Your task to perform on an android device: turn off translation in the chrome app Image 0: 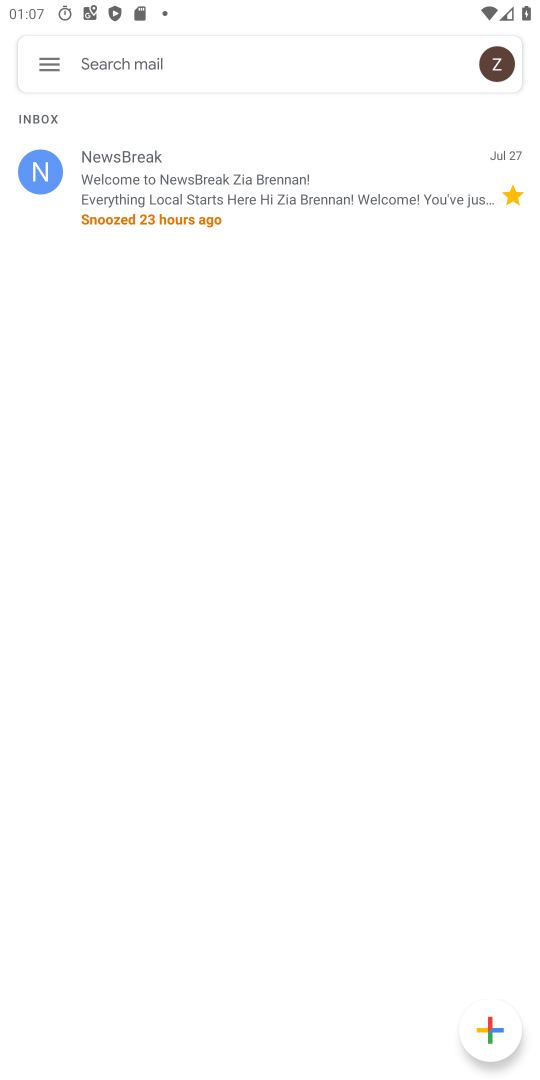
Step 0: press home button
Your task to perform on an android device: turn off translation in the chrome app Image 1: 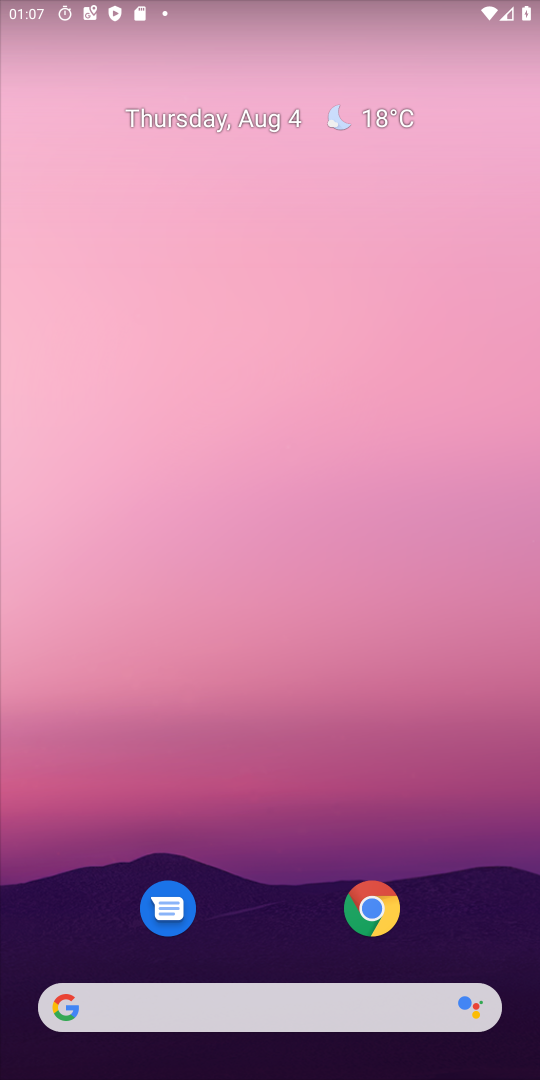
Step 1: drag from (376, 1036) to (337, 140)
Your task to perform on an android device: turn off translation in the chrome app Image 2: 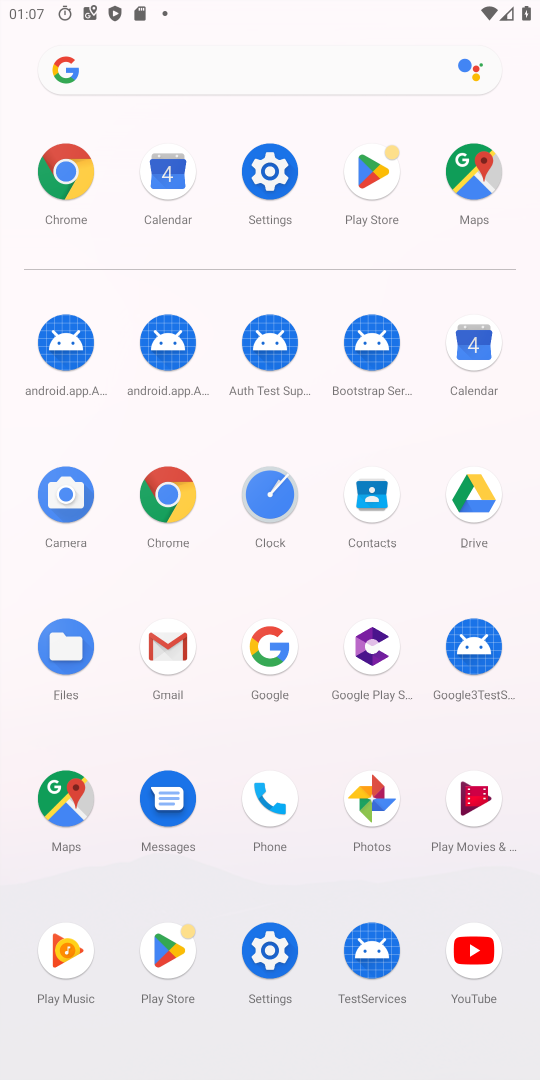
Step 2: click (66, 180)
Your task to perform on an android device: turn off translation in the chrome app Image 3: 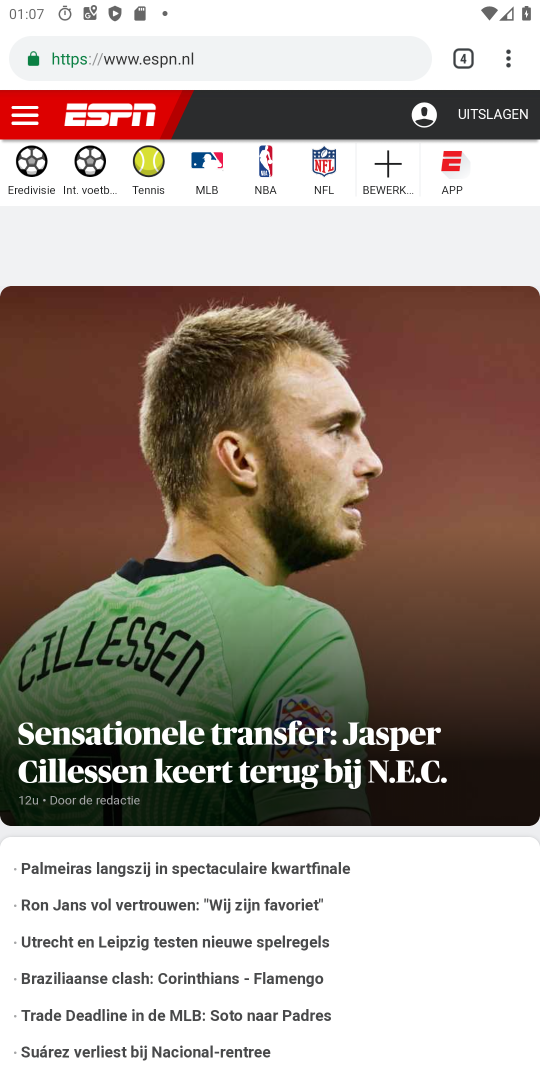
Step 3: click (513, 66)
Your task to perform on an android device: turn off translation in the chrome app Image 4: 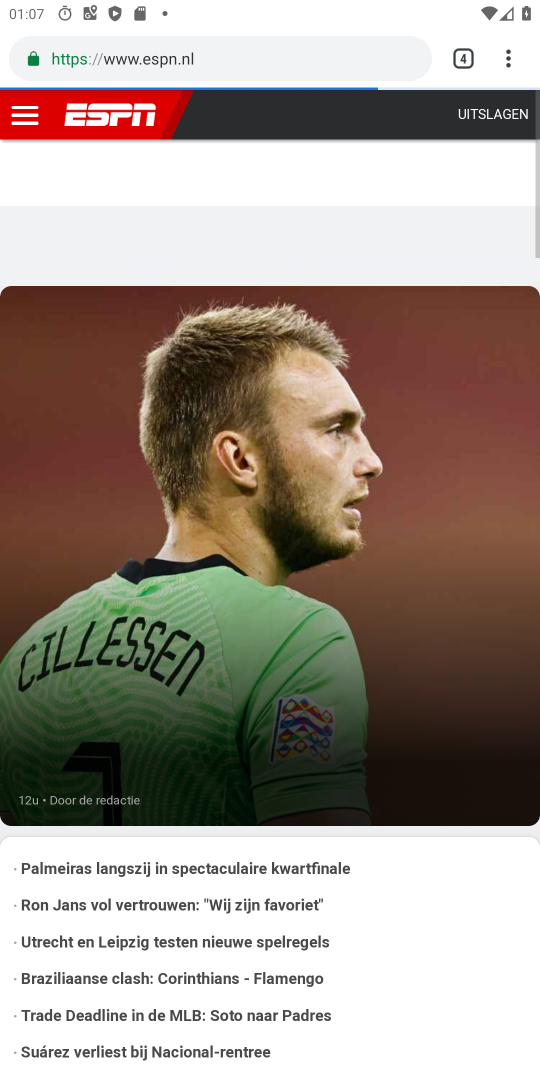
Step 4: click (504, 70)
Your task to perform on an android device: turn off translation in the chrome app Image 5: 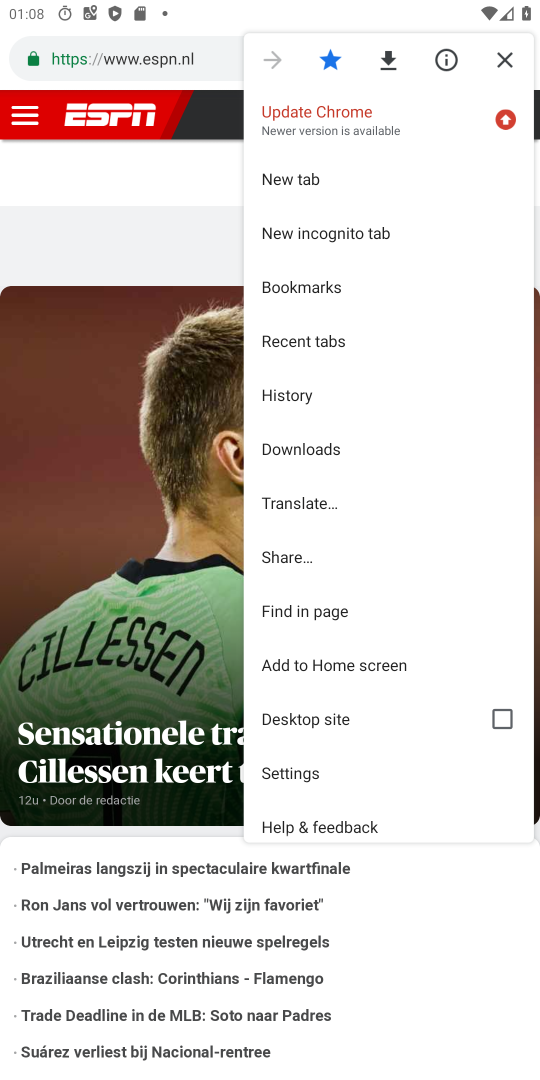
Step 5: click (296, 778)
Your task to perform on an android device: turn off translation in the chrome app Image 6: 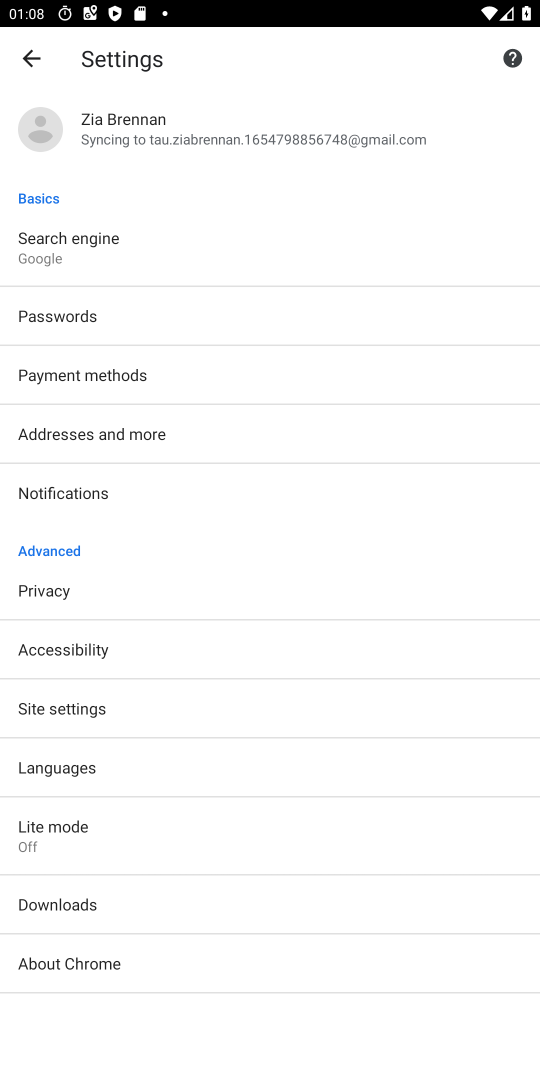
Step 6: click (130, 766)
Your task to perform on an android device: turn off translation in the chrome app Image 7: 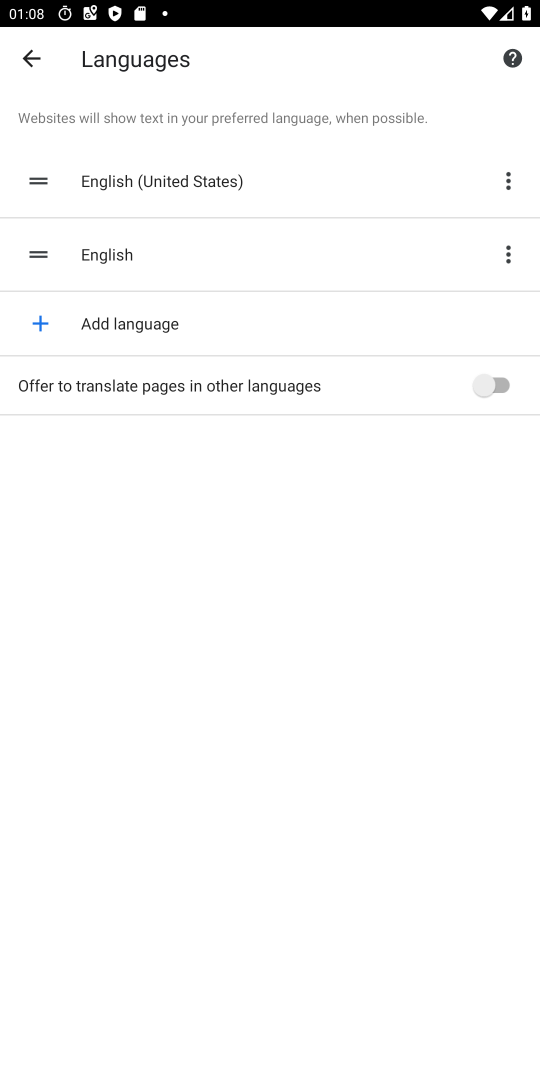
Step 7: click (337, 396)
Your task to perform on an android device: turn off translation in the chrome app Image 8: 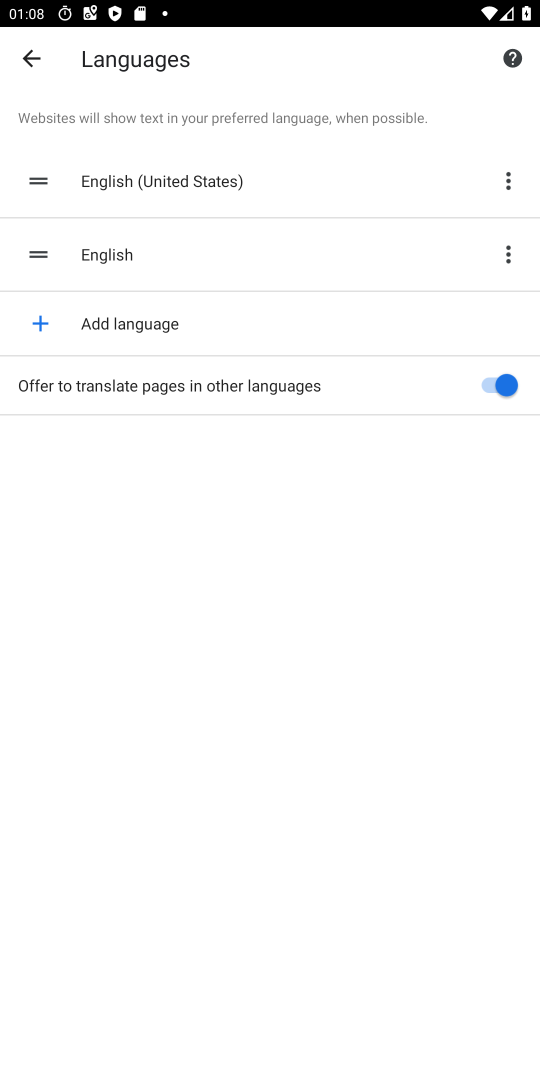
Step 8: click (491, 389)
Your task to perform on an android device: turn off translation in the chrome app Image 9: 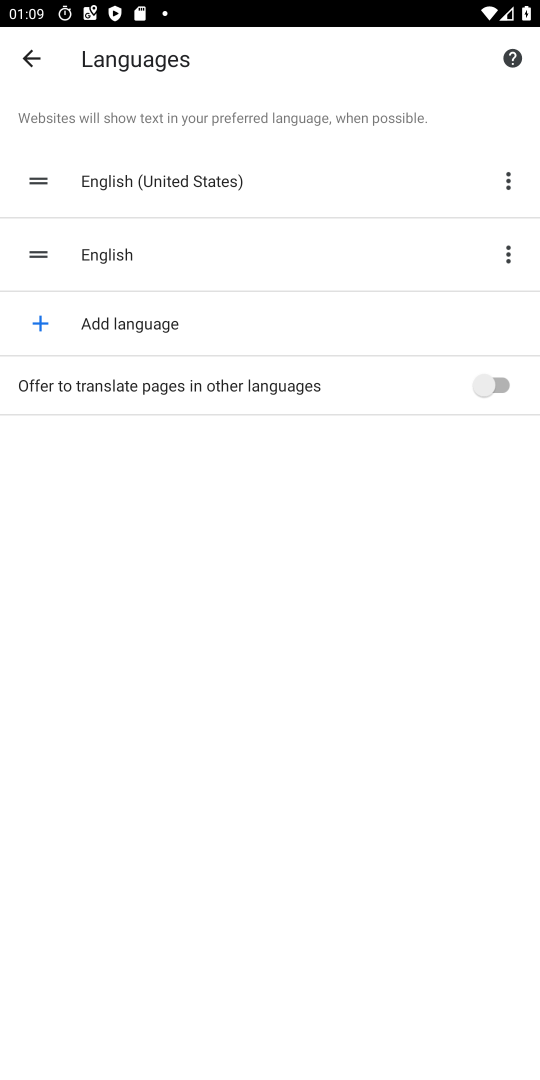
Step 9: task complete